Your task to perform on an android device: clear history in the chrome app Image 0: 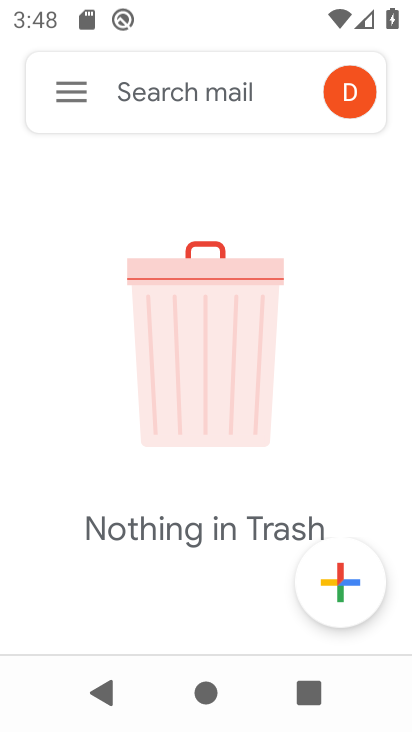
Step 0: press home button
Your task to perform on an android device: clear history in the chrome app Image 1: 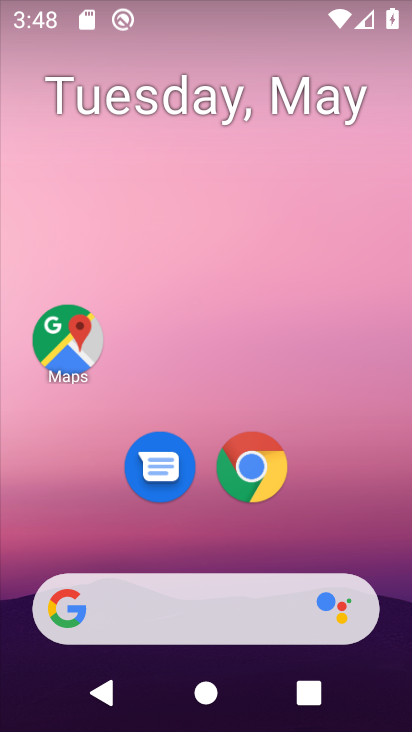
Step 1: click (236, 476)
Your task to perform on an android device: clear history in the chrome app Image 2: 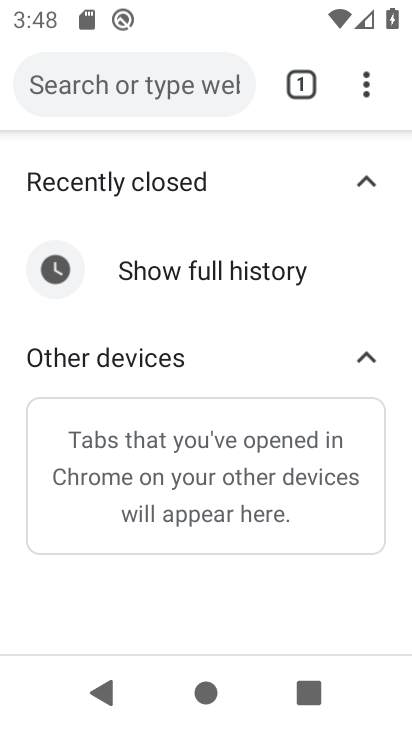
Step 2: click (364, 87)
Your task to perform on an android device: clear history in the chrome app Image 3: 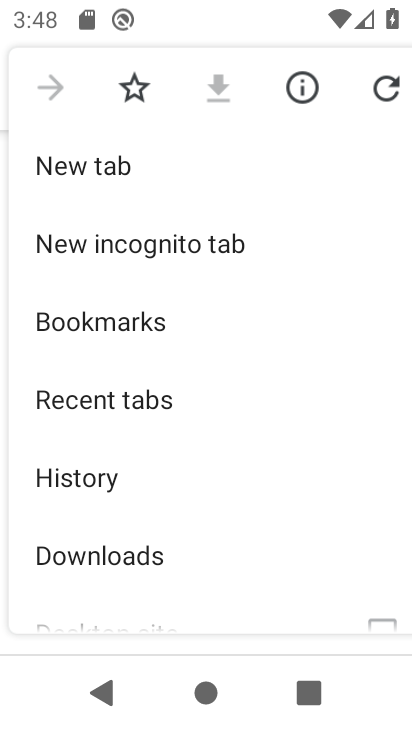
Step 3: click (69, 482)
Your task to perform on an android device: clear history in the chrome app Image 4: 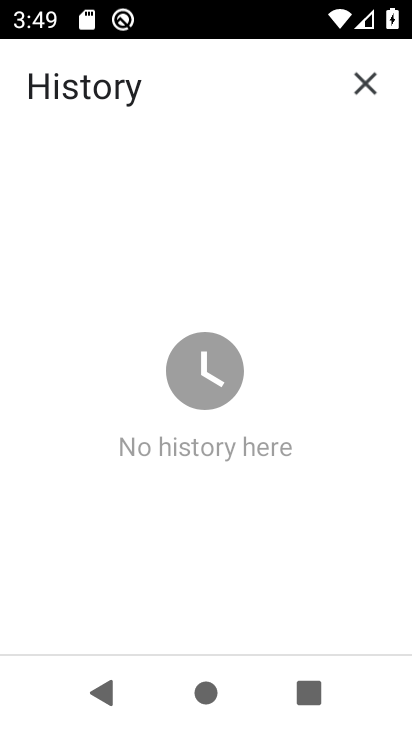
Step 4: task complete